Your task to perform on an android device: Search for Mexican restaurants on Maps Image 0: 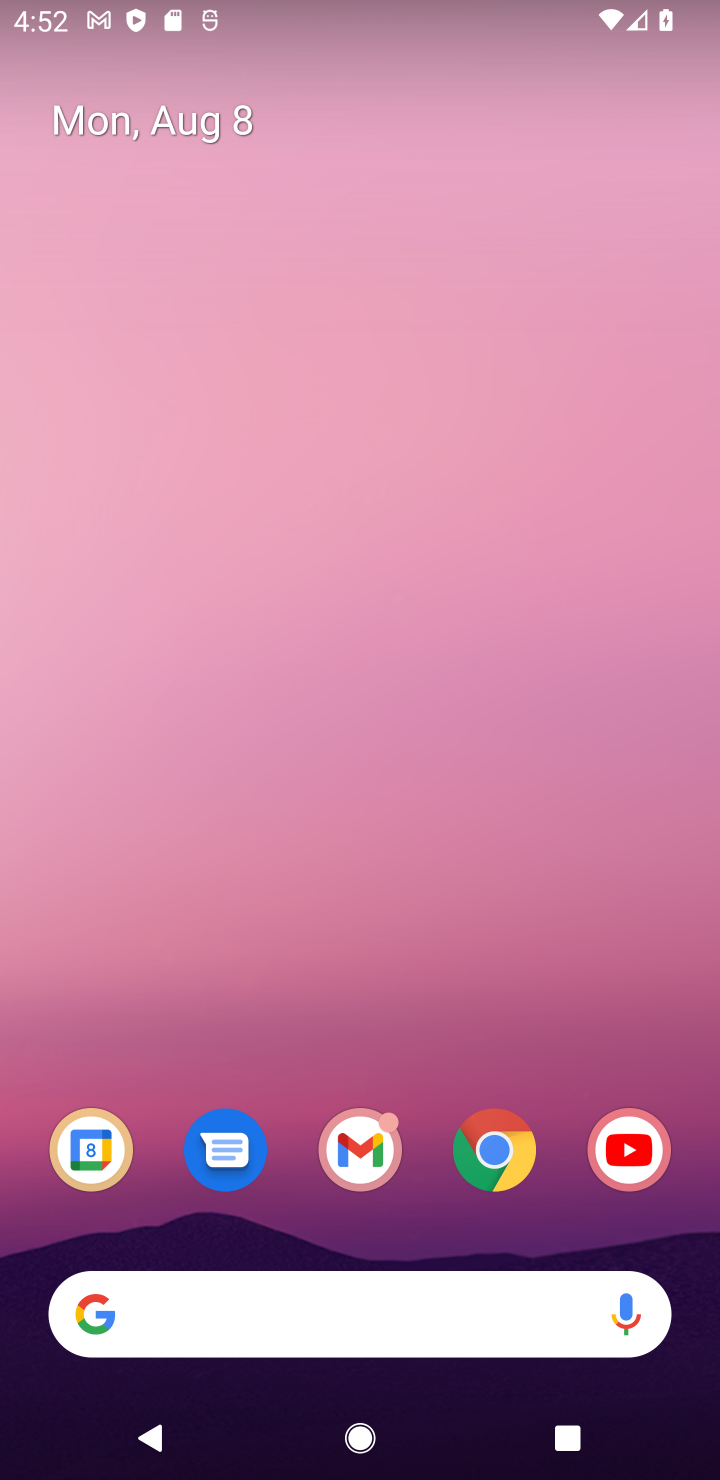
Step 0: drag from (563, 1219) to (303, 37)
Your task to perform on an android device: Search for Mexican restaurants on Maps Image 1: 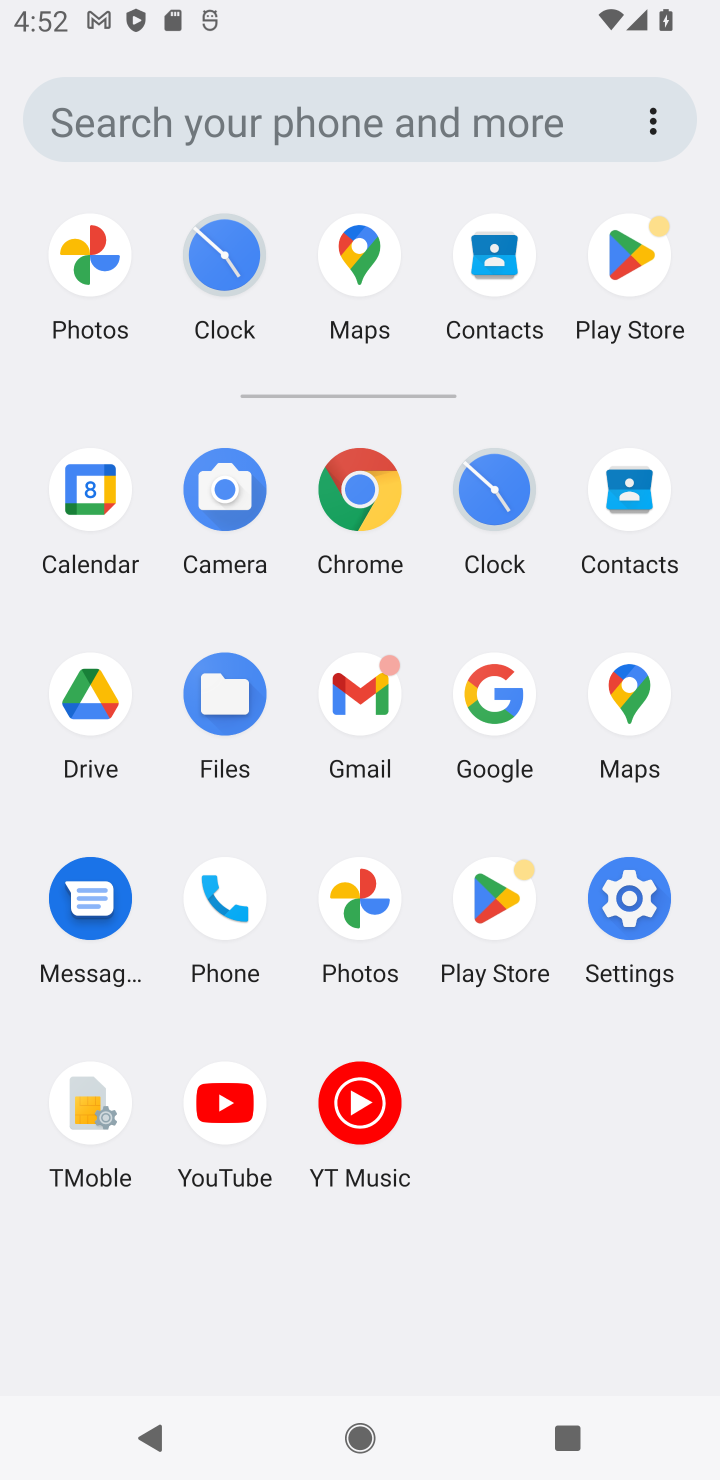
Step 1: click (615, 744)
Your task to perform on an android device: Search for Mexican restaurants on Maps Image 2: 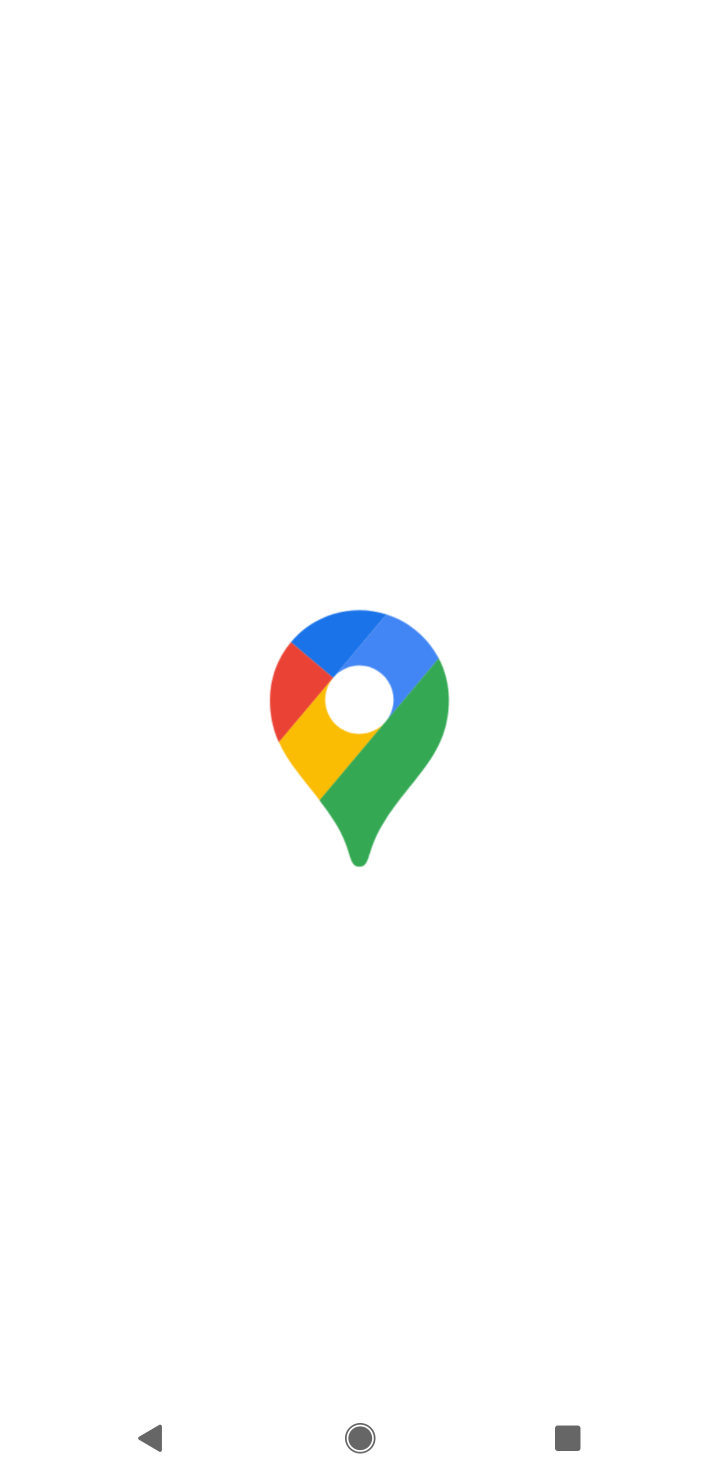
Step 2: task complete